Your task to perform on an android device: remove spam from my inbox in the gmail app Image 0: 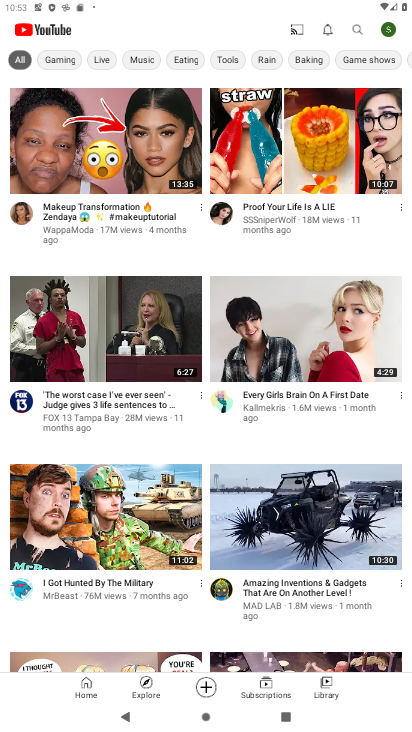
Step 0: press back button
Your task to perform on an android device: remove spam from my inbox in the gmail app Image 1: 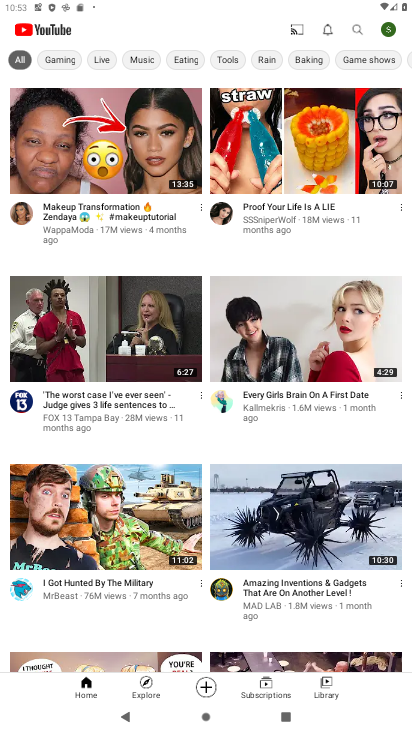
Step 1: press back button
Your task to perform on an android device: remove spam from my inbox in the gmail app Image 2: 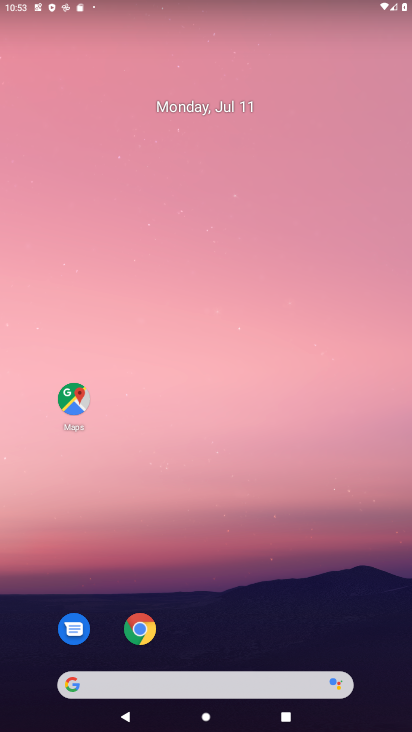
Step 2: drag from (230, 625) to (207, 43)
Your task to perform on an android device: remove spam from my inbox in the gmail app Image 3: 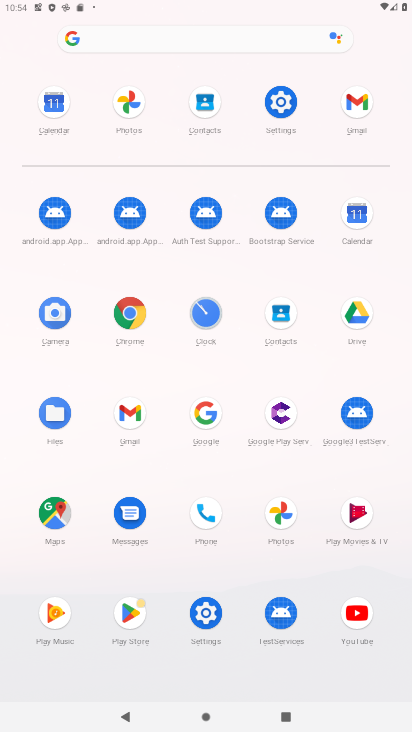
Step 3: click (359, 123)
Your task to perform on an android device: remove spam from my inbox in the gmail app Image 4: 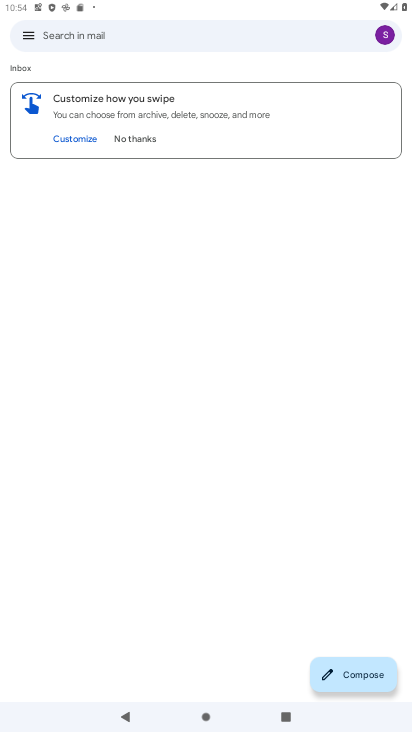
Step 4: click (69, 138)
Your task to perform on an android device: remove spam from my inbox in the gmail app Image 5: 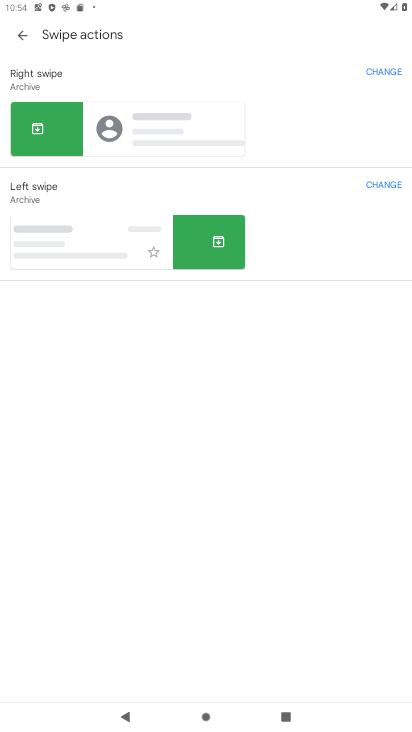
Step 5: click (14, 30)
Your task to perform on an android device: remove spam from my inbox in the gmail app Image 6: 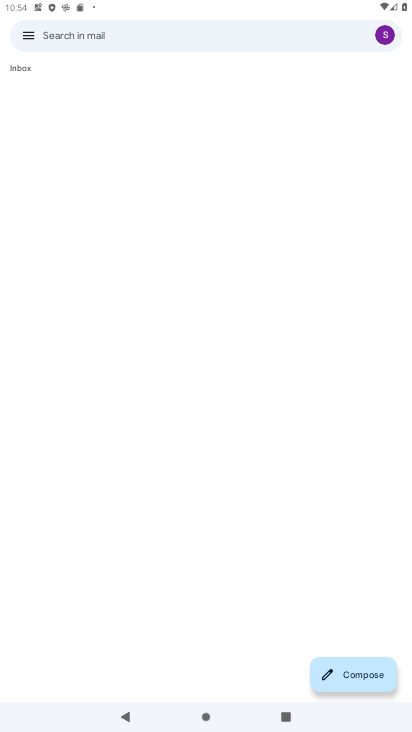
Step 6: click (27, 34)
Your task to perform on an android device: remove spam from my inbox in the gmail app Image 7: 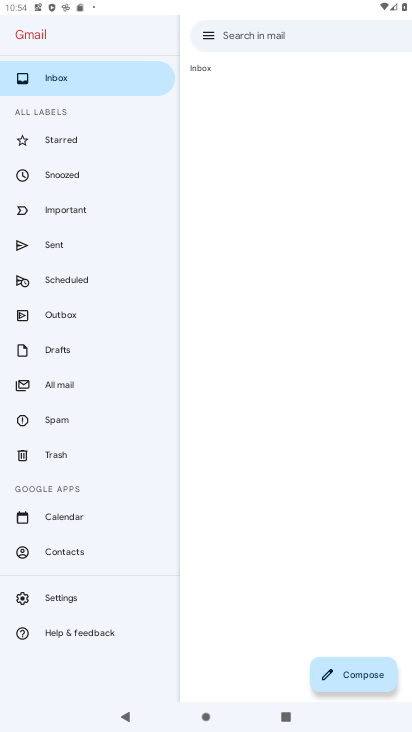
Step 7: click (59, 419)
Your task to perform on an android device: remove spam from my inbox in the gmail app Image 8: 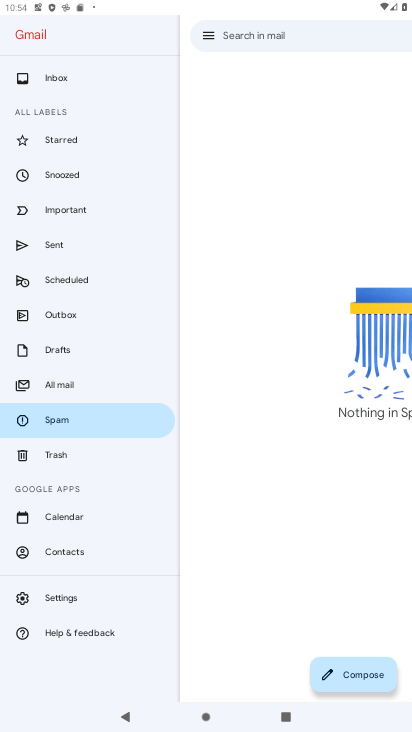
Step 8: task complete